Your task to perform on an android device: Open Chrome and go to settings Image 0: 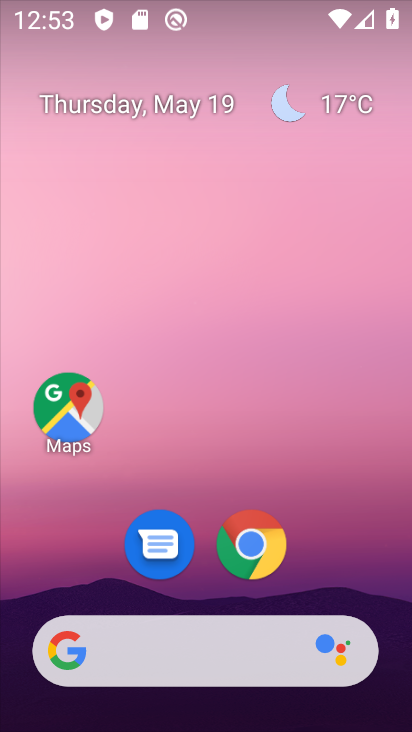
Step 0: click (254, 547)
Your task to perform on an android device: Open Chrome and go to settings Image 1: 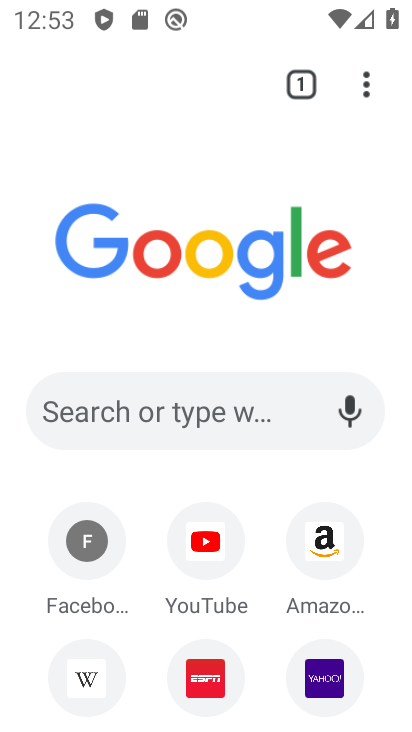
Step 1: click (364, 88)
Your task to perform on an android device: Open Chrome and go to settings Image 2: 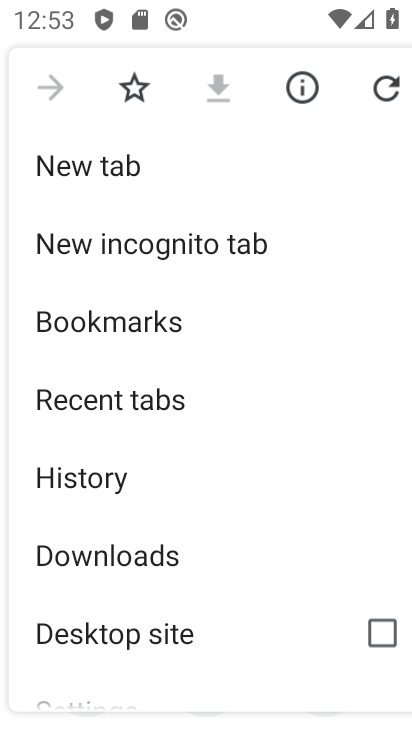
Step 2: drag from (150, 607) to (171, 274)
Your task to perform on an android device: Open Chrome and go to settings Image 3: 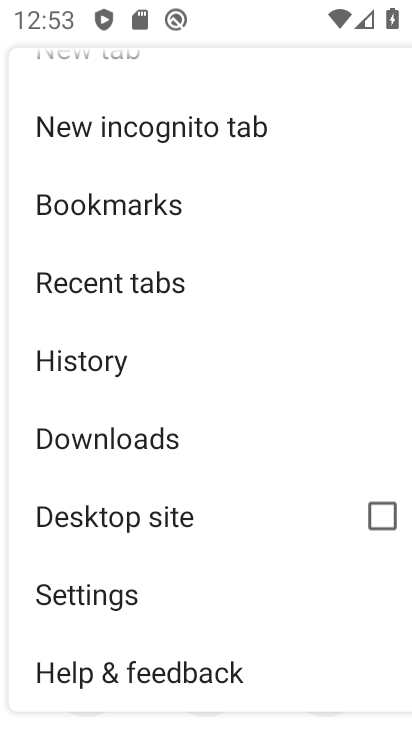
Step 3: click (94, 590)
Your task to perform on an android device: Open Chrome and go to settings Image 4: 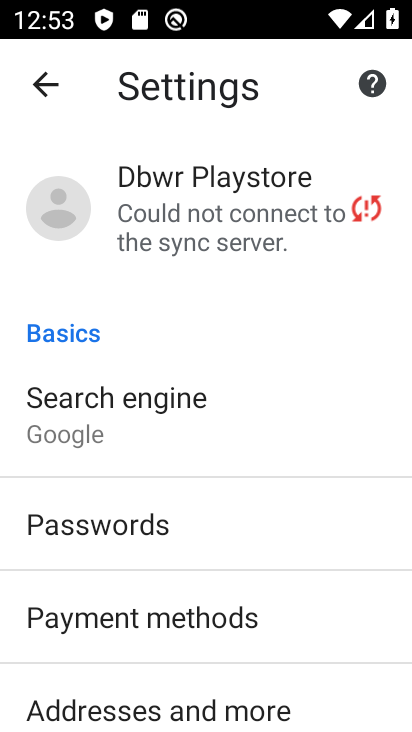
Step 4: task complete